Your task to perform on an android device: toggle priority inbox in the gmail app Image 0: 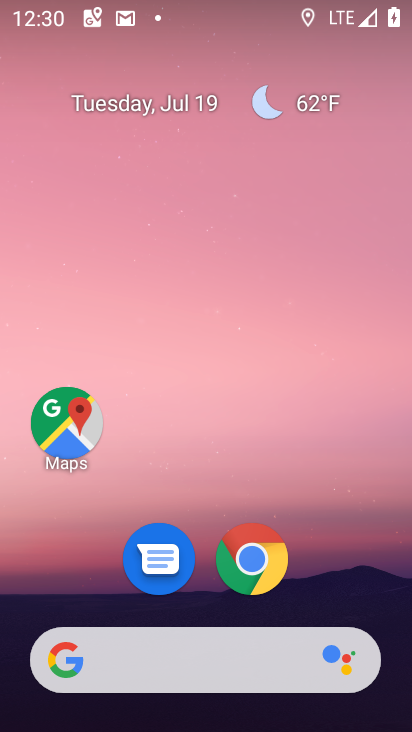
Step 0: drag from (234, 671) to (243, 173)
Your task to perform on an android device: toggle priority inbox in the gmail app Image 1: 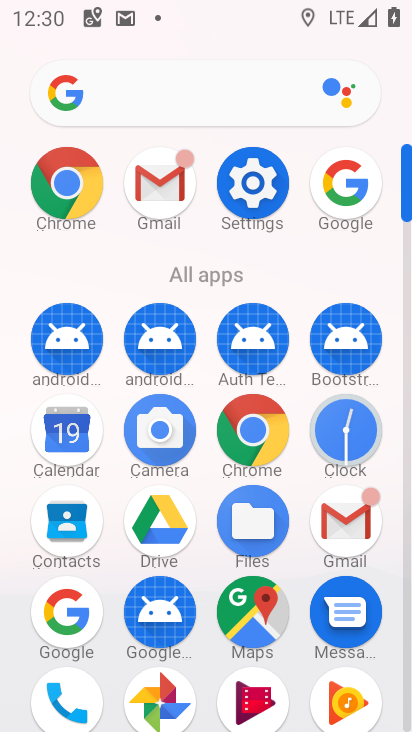
Step 1: click (356, 546)
Your task to perform on an android device: toggle priority inbox in the gmail app Image 2: 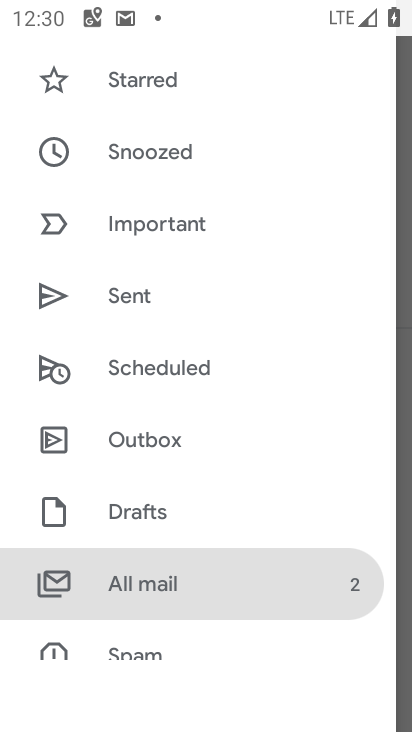
Step 2: drag from (125, 650) to (182, 166)
Your task to perform on an android device: toggle priority inbox in the gmail app Image 3: 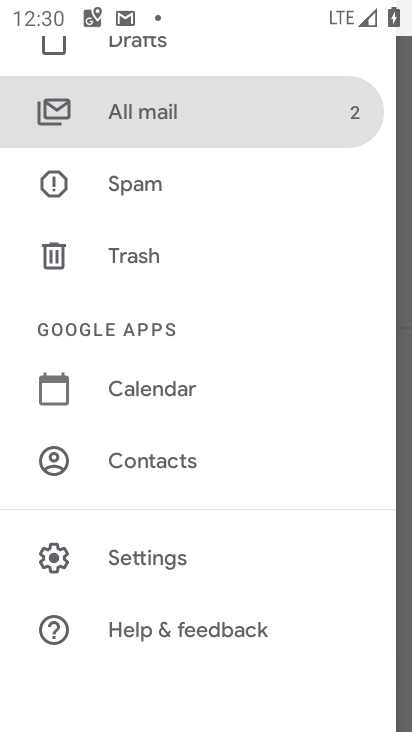
Step 3: click (110, 562)
Your task to perform on an android device: toggle priority inbox in the gmail app Image 4: 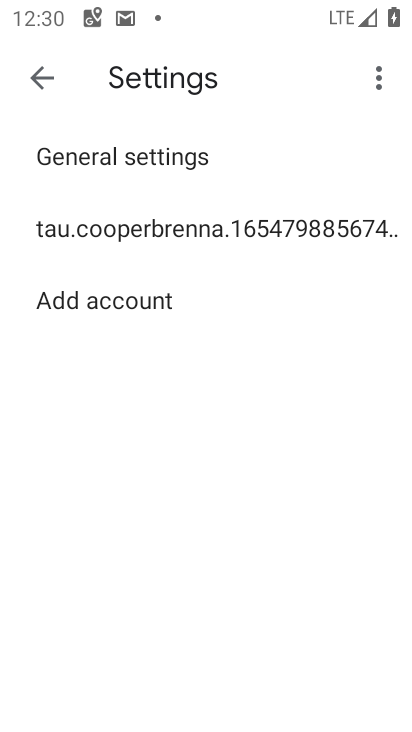
Step 4: click (142, 251)
Your task to perform on an android device: toggle priority inbox in the gmail app Image 5: 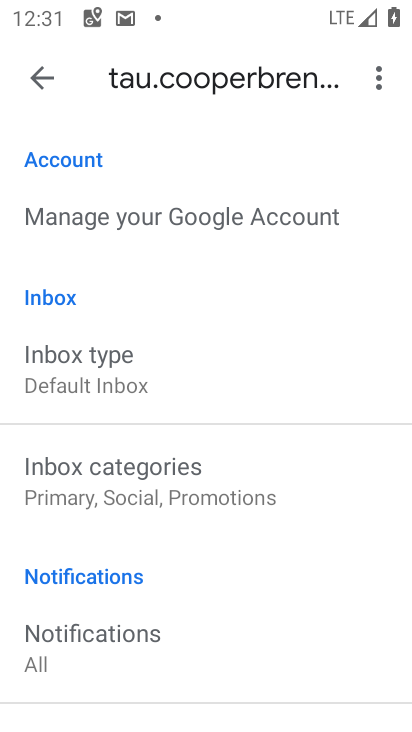
Step 5: click (77, 357)
Your task to perform on an android device: toggle priority inbox in the gmail app Image 6: 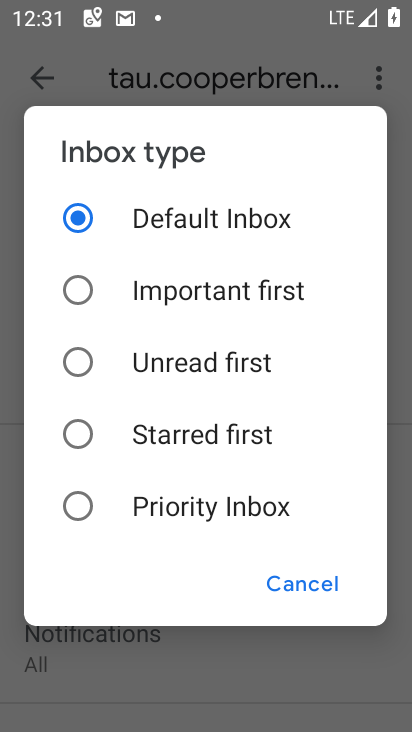
Step 6: click (129, 507)
Your task to perform on an android device: toggle priority inbox in the gmail app Image 7: 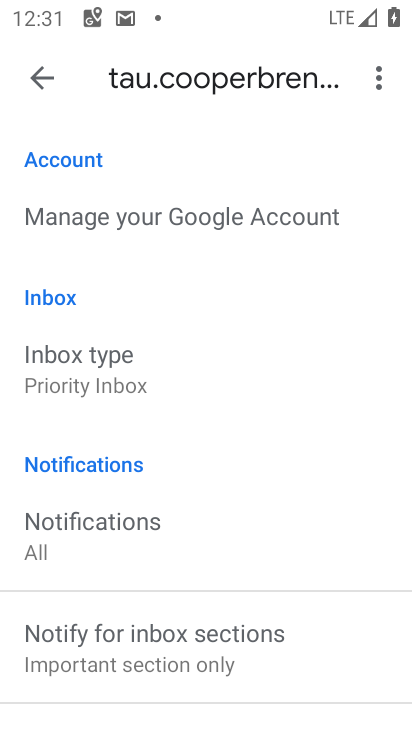
Step 7: task complete